Your task to perform on an android device: toggle priority inbox in the gmail app Image 0: 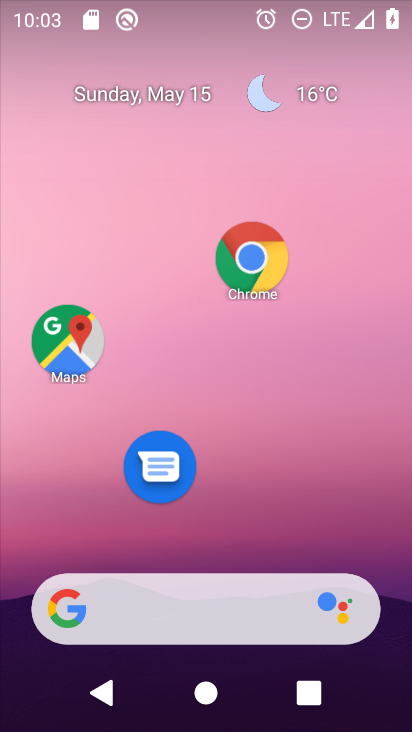
Step 0: drag from (223, 534) to (280, 13)
Your task to perform on an android device: toggle priority inbox in the gmail app Image 1: 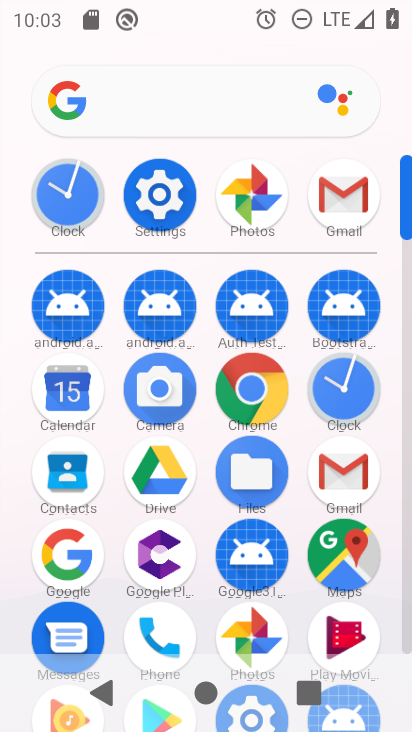
Step 1: click (323, 172)
Your task to perform on an android device: toggle priority inbox in the gmail app Image 2: 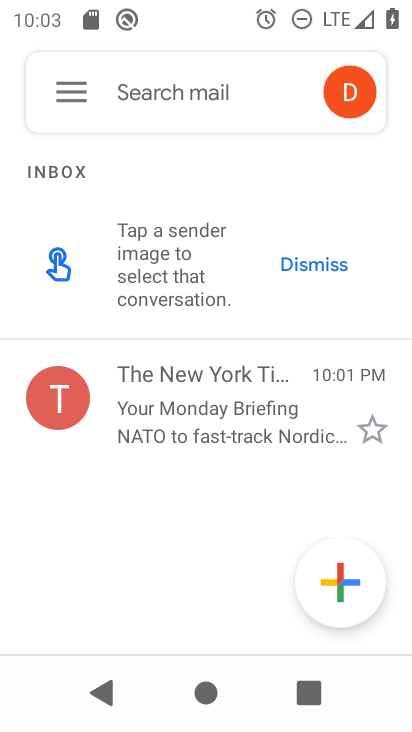
Step 2: click (66, 93)
Your task to perform on an android device: toggle priority inbox in the gmail app Image 3: 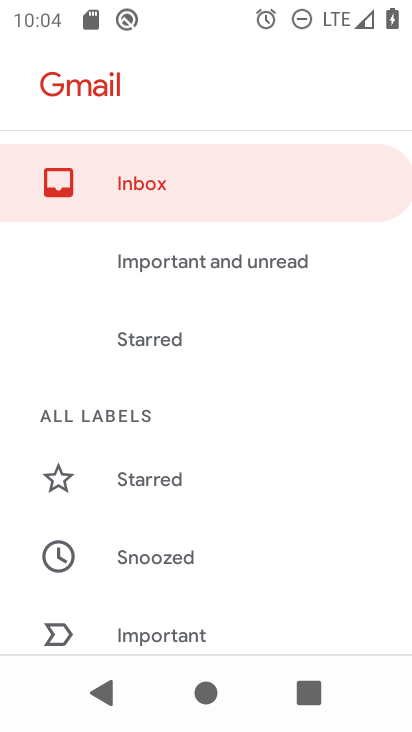
Step 3: drag from (149, 610) to (235, 27)
Your task to perform on an android device: toggle priority inbox in the gmail app Image 4: 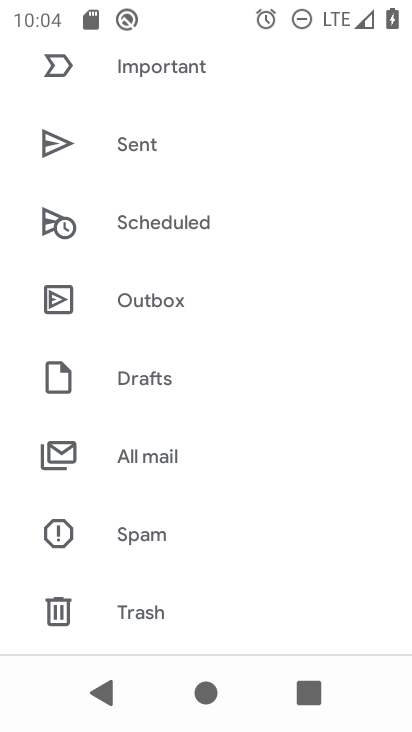
Step 4: drag from (184, 593) to (213, 76)
Your task to perform on an android device: toggle priority inbox in the gmail app Image 5: 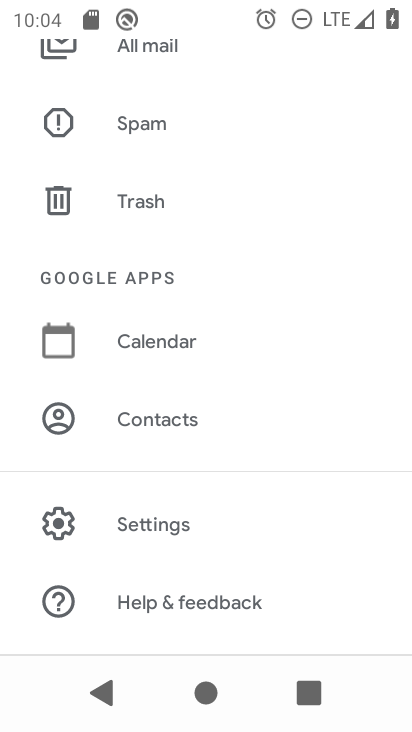
Step 5: click (221, 525)
Your task to perform on an android device: toggle priority inbox in the gmail app Image 6: 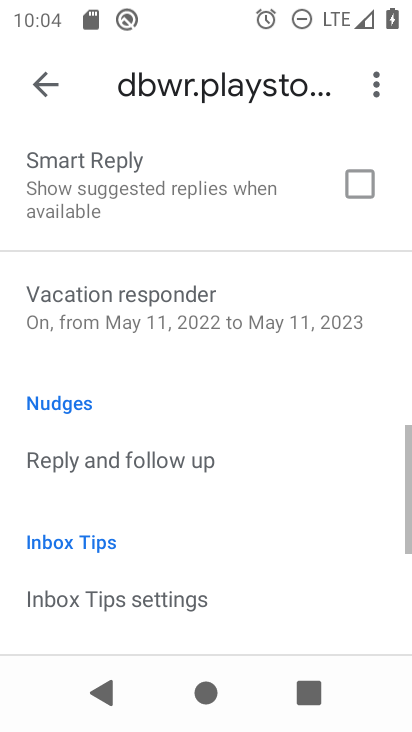
Step 6: drag from (221, 525) to (269, 83)
Your task to perform on an android device: toggle priority inbox in the gmail app Image 7: 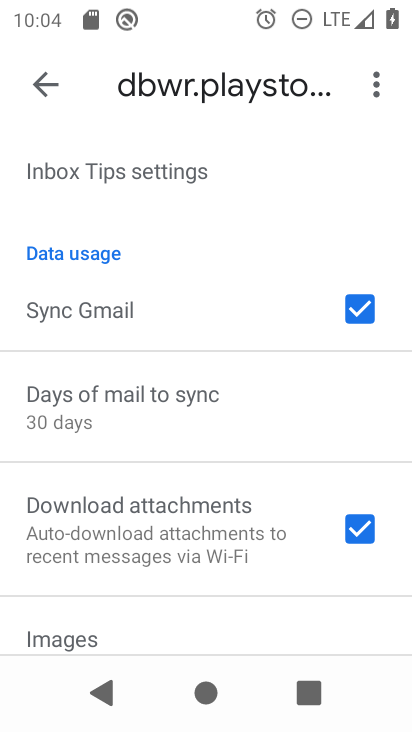
Step 7: drag from (234, 517) to (220, 264)
Your task to perform on an android device: toggle priority inbox in the gmail app Image 8: 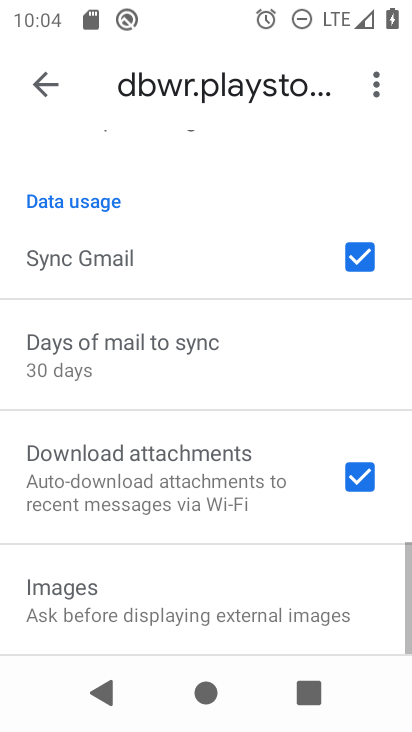
Step 8: drag from (205, 228) to (167, 617)
Your task to perform on an android device: toggle priority inbox in the gmail app Image 9: 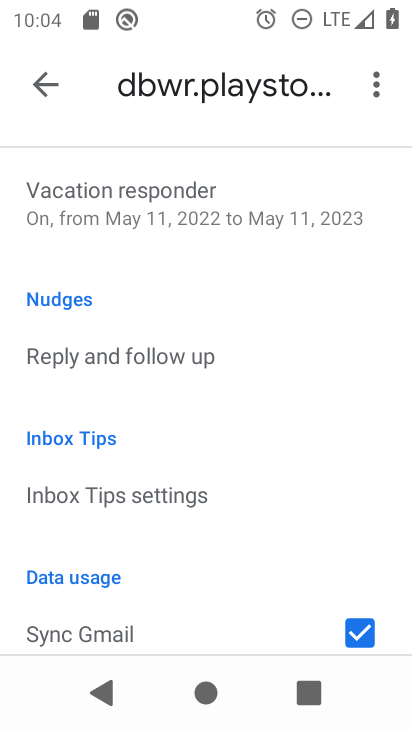
Step 9: drag from (171, 267) to (174, 687)
Your task to perform on an android device: toggle priority inbox in the gmail app Image 10: 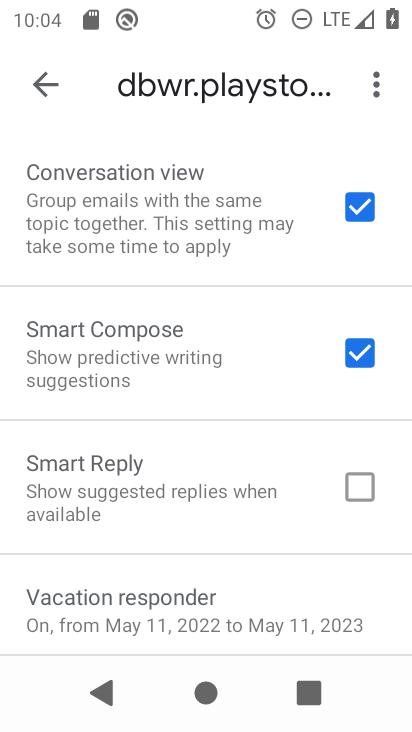
Step 10: drag from (163, 291) to (149, 616)
Your task to perform on an android device: toggle priority inbox in the gmail app Image 11: 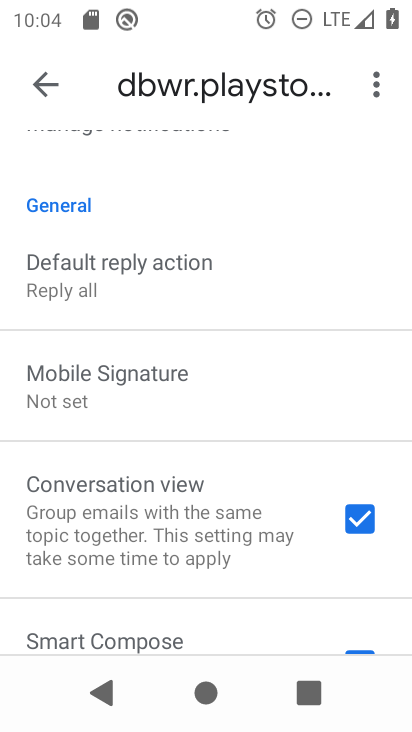
Step 11: drag from (111, 266) to (172, 665)
Your task to perform on an android device: toggle priority inbox in the gmail app Image 12: 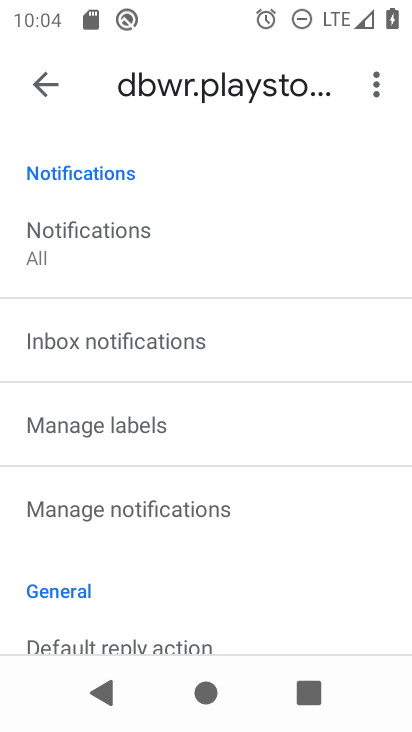
Step 12: drag from (214, 234) to (176, 620)
Your task to perform on an android device: toggle priority inbox in the gmail app Image 13: 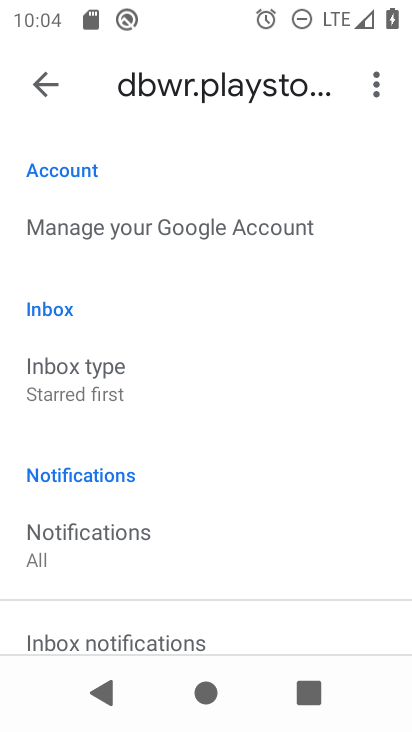
Step 13: click (148, 394)
Your task to perform on an android device: toggle priority inbox in the gmail app Image 14: 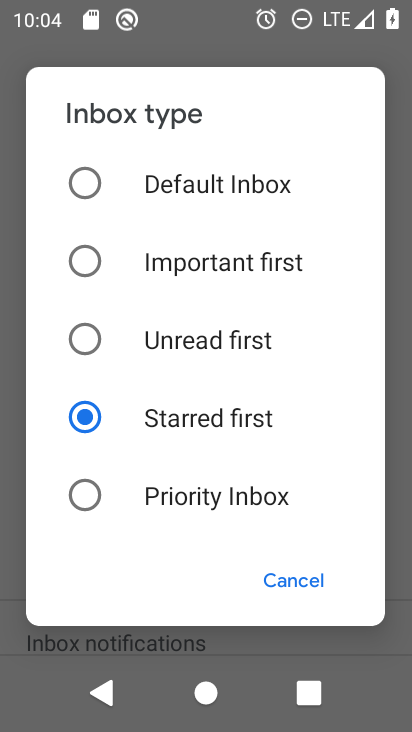
Step 14: click (147, 333)
Your task to perform on an android device: toggle priority inbox in the gmail app Image 15: 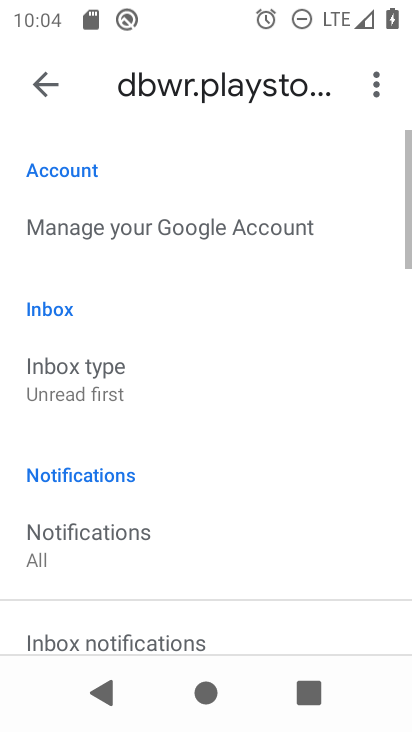
Step 15: task complete